Your task to perform on an android device: turn pop-ups off in chrome Image 0: 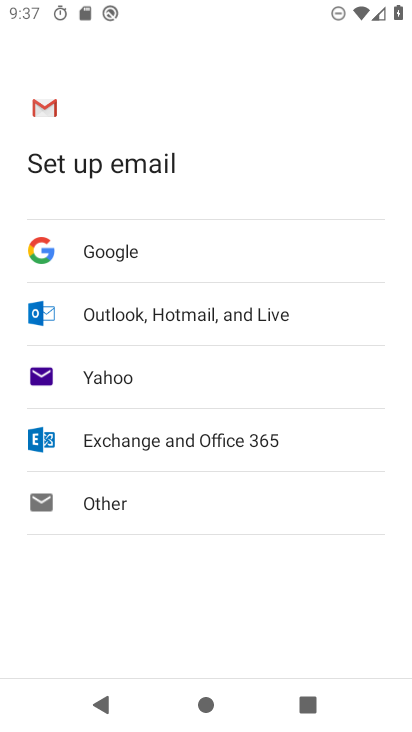
Step 0: press home button
Your task to perform on an android device: turn pop-ups off in chrome Image 1: 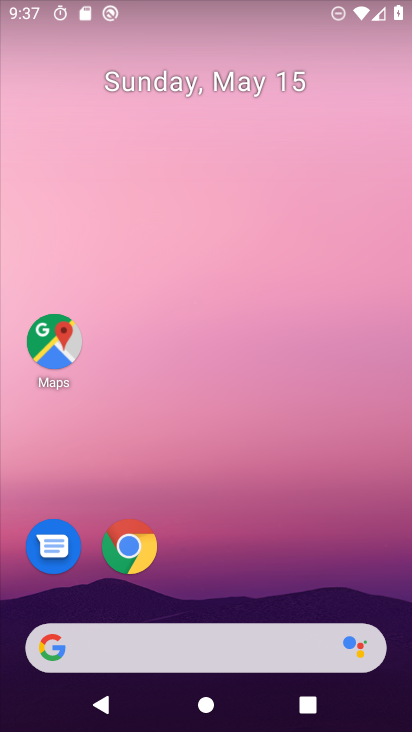
Step 1: click (135, 548)
Your task to perform on an android device: turn pop-ups off in chrome Image 2: 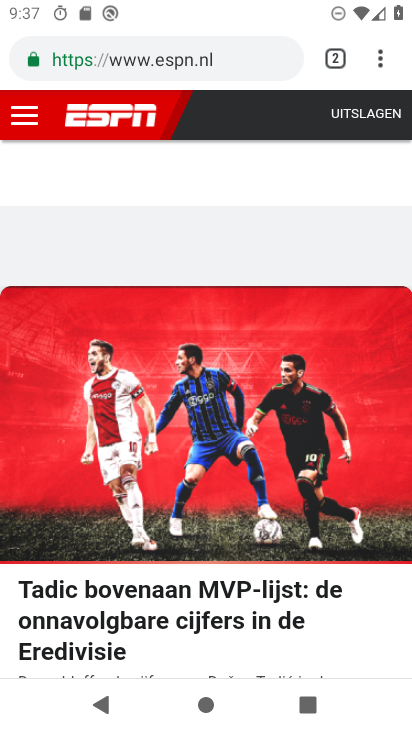
Step 2: click (376, 54)
Your task to perform on an android device: turn pop-ups off in chrome Image 3: 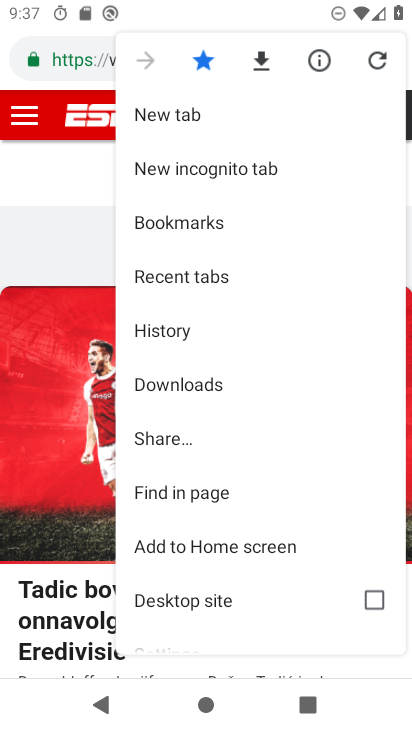
Step 3: drag from (303, 468) to (285, 231)
Your task to perform on an android device: turn pop-ups off in chrome Image 4: 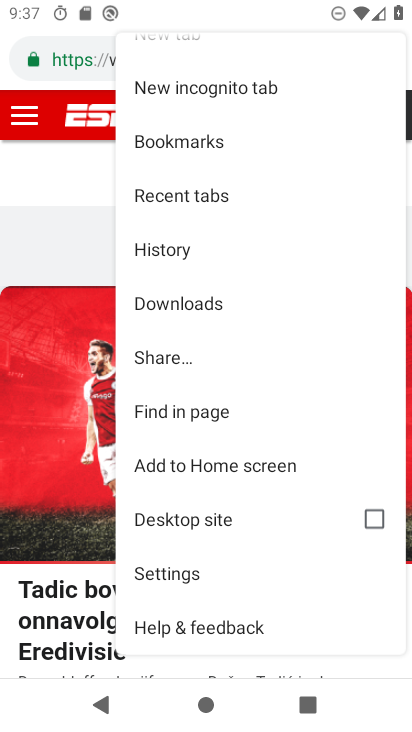
Step 4: click (208, 568)
Your task to perform on an android device: turn pop-ups off in chrome Image 5: 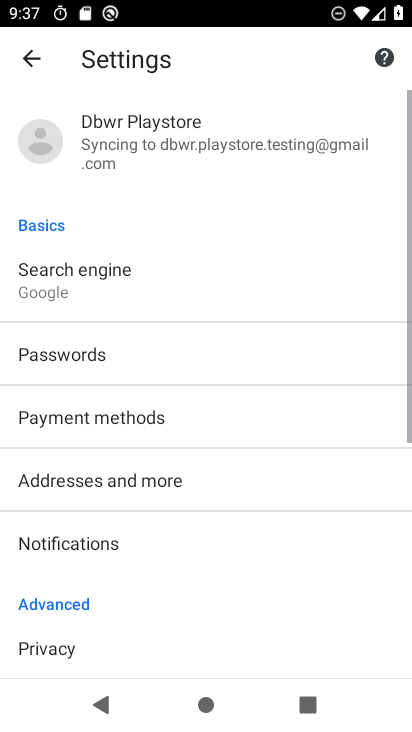
Step 5: drag from (211, 549) to (239, 286)
Your task to perform on an android device: turn pop-ups off in chrome Image 6: 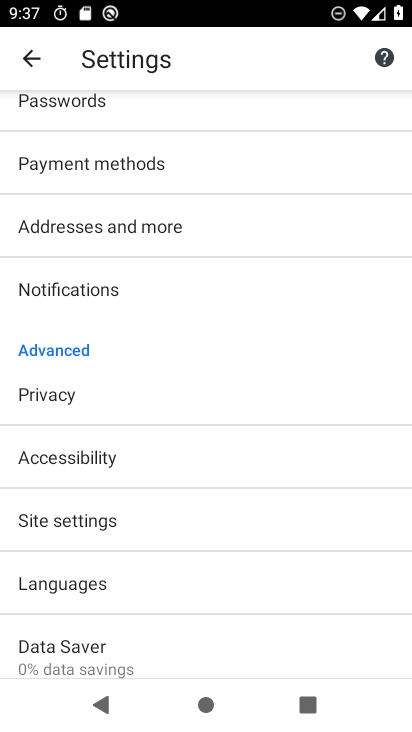
Step 6: click (224, 514)
Your task to perform on an android device: turn pop-ups off in chrome Image 7: 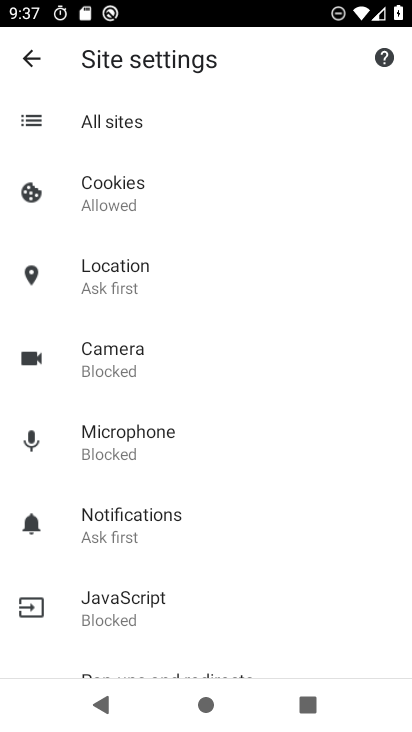
Step 7: drag from (228, 558) to (226, 341)
Your task to perform on an android device: turn pop-ups off in chrome Image 8: 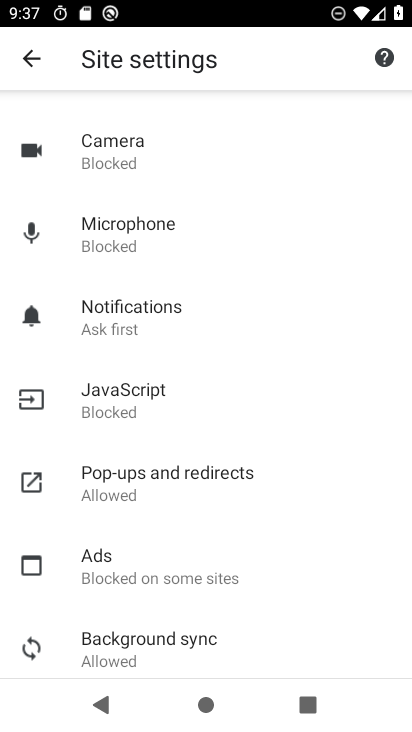
Step 8: click (223, 489)
Your task to perform on an android device: turn pop-ups off in chrome Image 9: 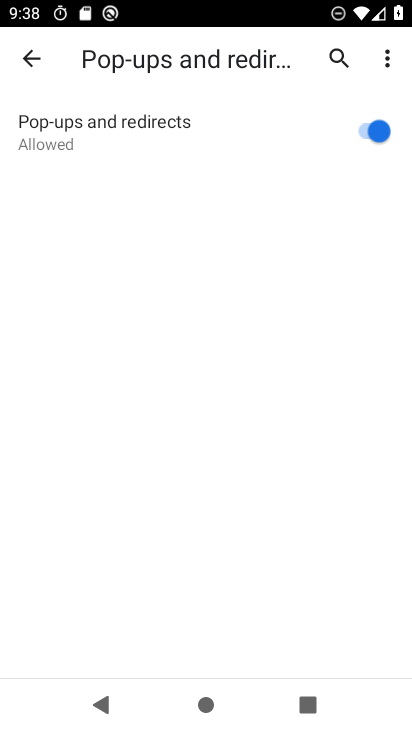
Step 9: click (358, 126)
Your task to perform on an android device: turn pop-ups off in chrome Image 10: 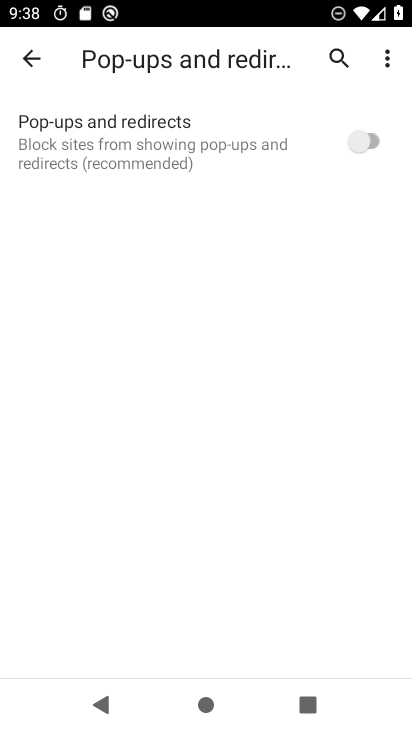
Step 10: task complete